Your task to perform on an android device: add a contact Image 0: 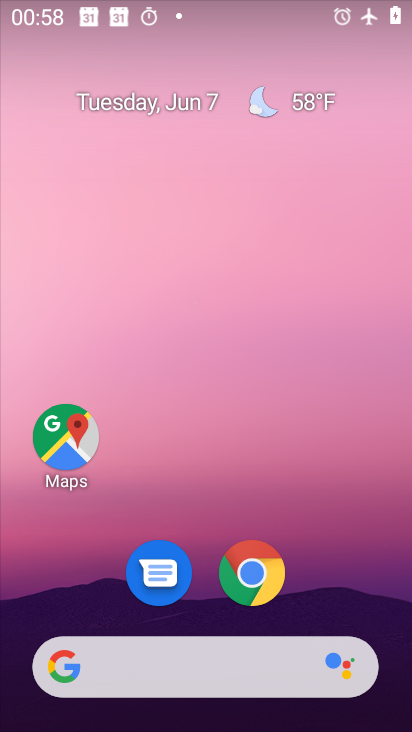
Step 0: press home button
Your task to perform on an android device: add a contact Image 1: 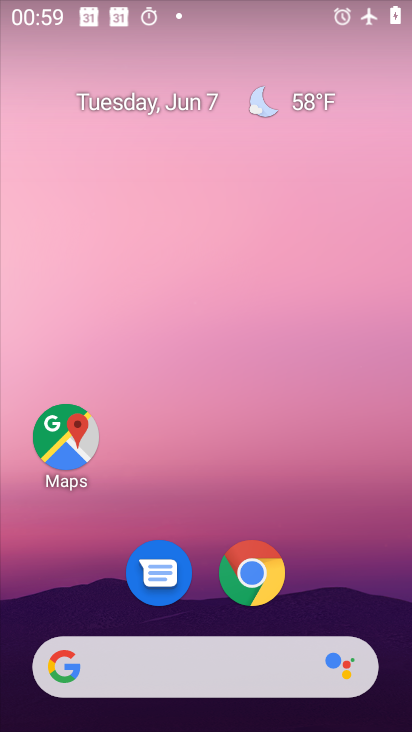
Step 1: drag from (337, 577) to (281, 35)
Your task to perform on an android device: add a contact Image 2: 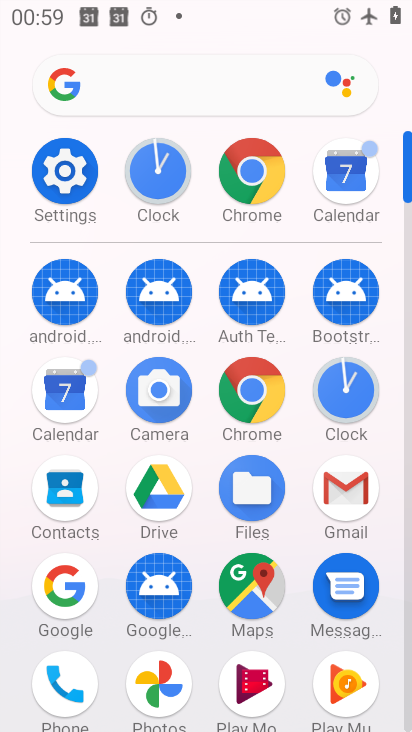
Step 2: click (67, 678)
Your task to perform on an android device: add a contact Image 3: 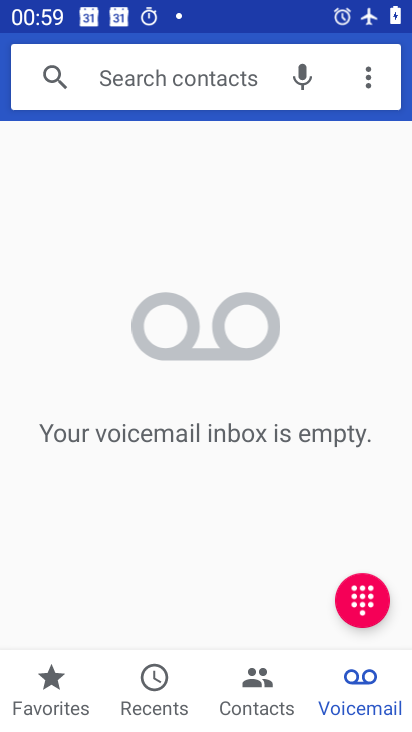
Step 3: click (241, 687)
Your task to perform on an android device: add a contact Image 4: 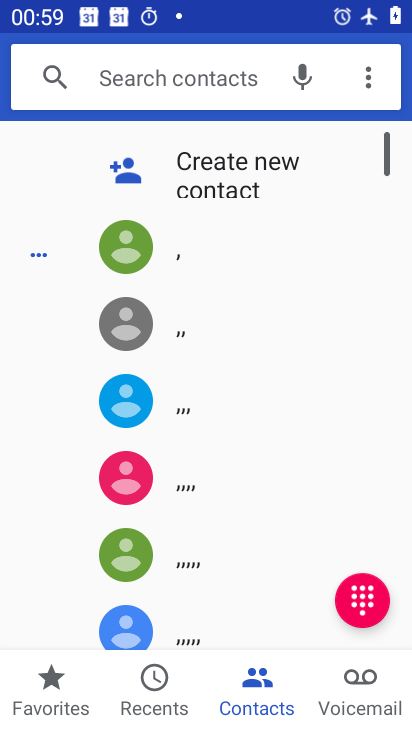
Step 4: click (191, 169)
Your task to perform on an android device: add a contact Image 5: 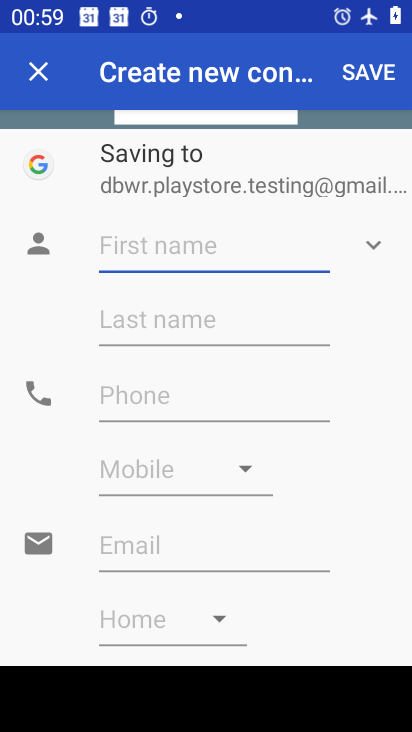
Step 5: type "mjhgyftur5e4wafy;oi['i;o;oij['09uojbuvgvg"
Your task to perform on an android device: add a contact Image 6: 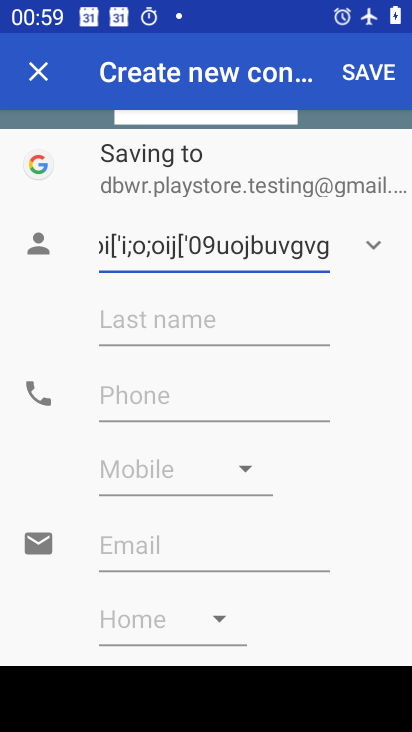
Step 6: click (230, 382)
Your task to perform on an android device: add a contact Image 7: 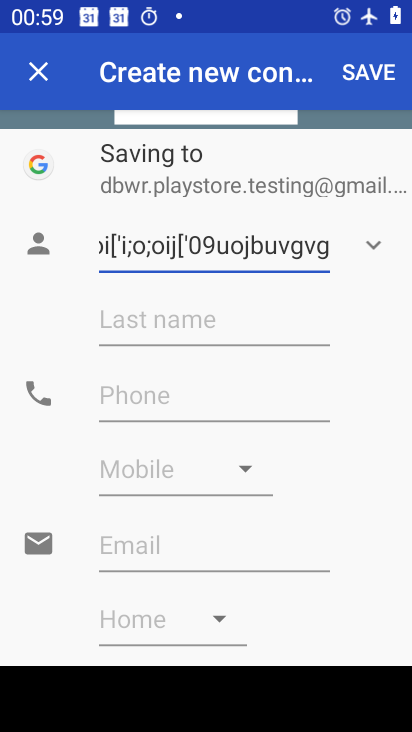
Step 7: click (230, 382)
Your task to perform on an android device: add a contact Image 8: 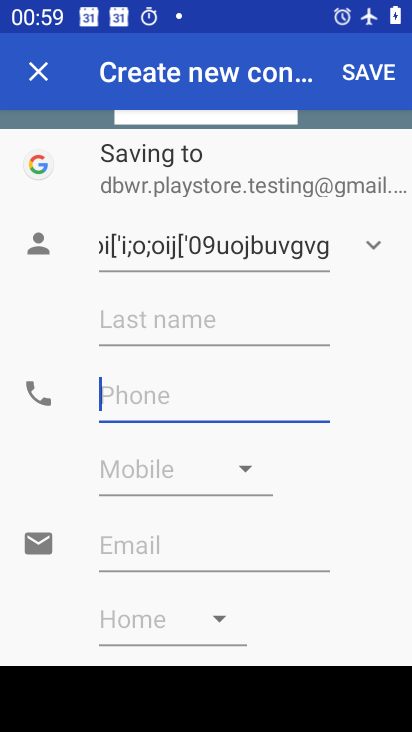
Step 8: click (230, 382)
Your task to perform on an android device: add a contact Image 9: 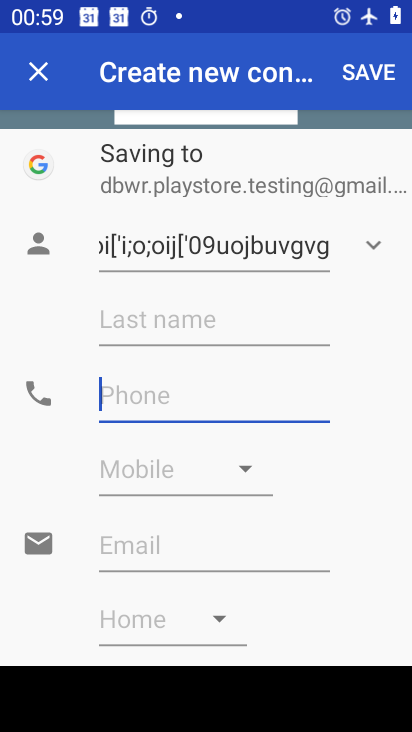
Step 9: click (230, 382)
Your task to perform on an android device: add a contact Image 10: 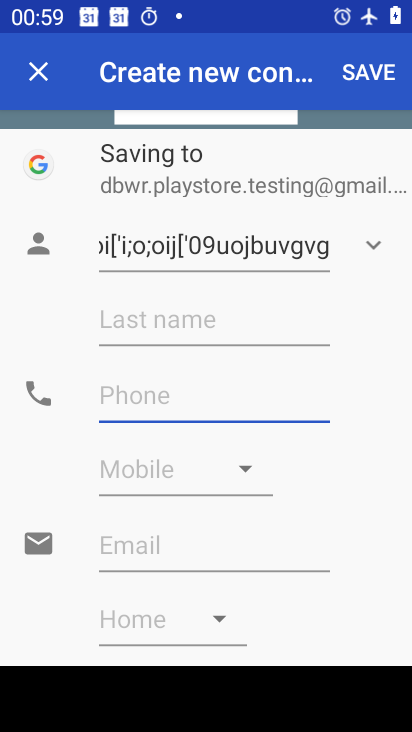
Step 10: click (230, 382)
Your task to perform on an android device: add a contact Image 11: 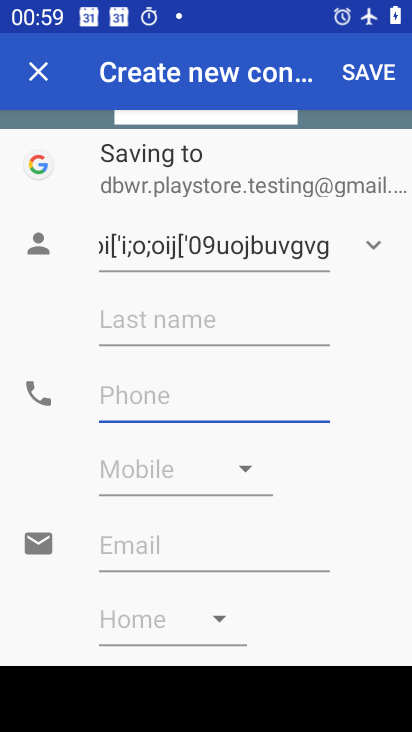
Step 11: click (230, 382)
Your task to perform on an android device: add a contact Image 12: 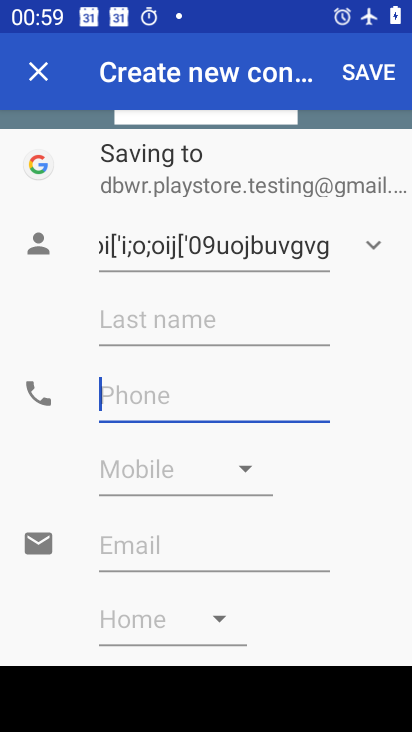
Step 12: type "345678765436789765"
Your task to perform on an android device: add a contact Image 13: 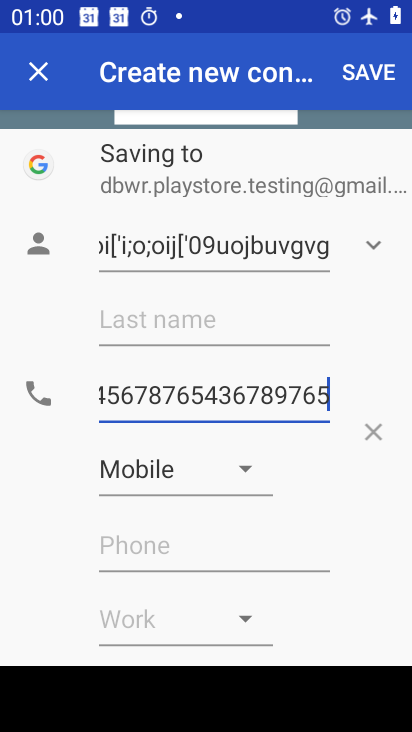
Step 13: click (356, 68)
Your task to perform on an android device: add a contact Image 14: 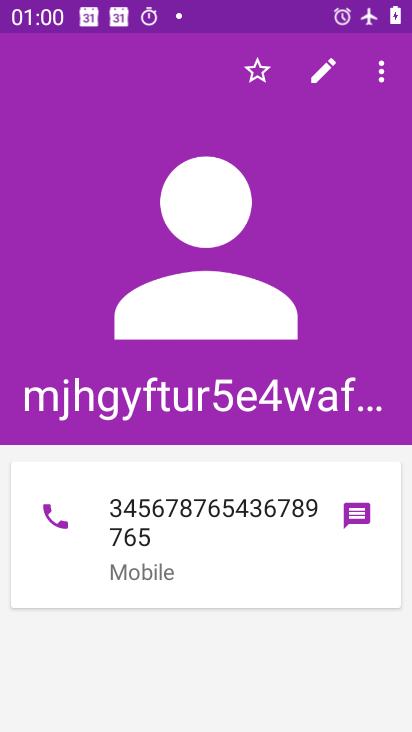
Step 14: task complete